Your task to perform on an android device: change the clock display to digital Image 0: 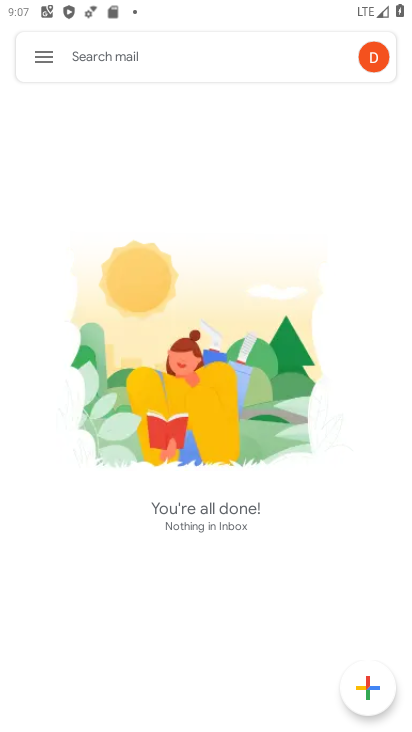
Step 0: press home button
Your task to perform on an android device: change the clock display to digital Image 1: 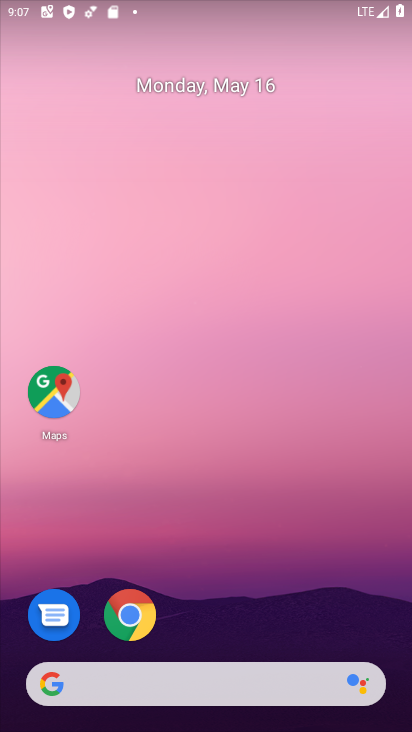
Step 1: drag from (235, 620) to (261, 178)
Your task to perform on an android device: change the clock display to digital Image 2: 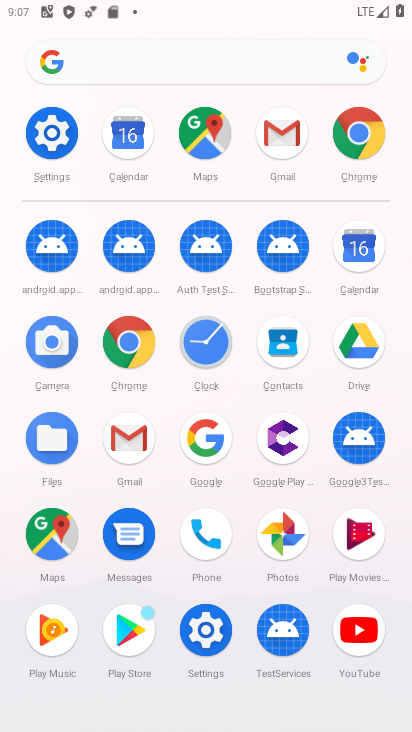
Step 2: click (200, 366)
Your task to perform on an android device: change the clock display to digital Image 3: 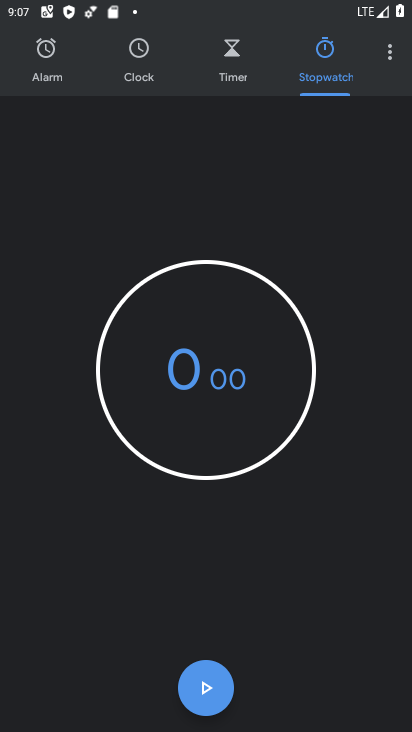
Step 3: click (385, 52)
Your task to perform on an android device: change the clock display to digital Image 4: 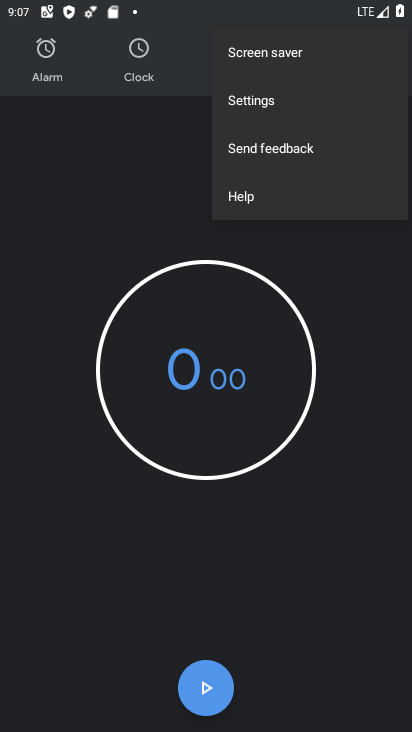
Step 4: click (240, 110)
Your task to perform on an android device: change the clock display to digital Image 5: 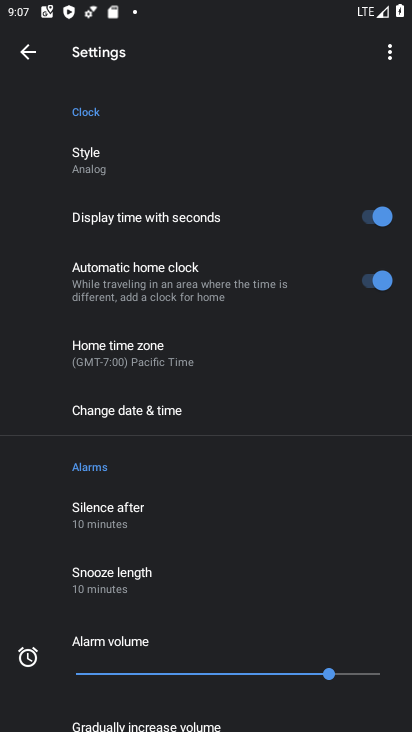
Step 5: click (119, 166)
Your task to perform on an android device: change the clock display to digital Image 6: 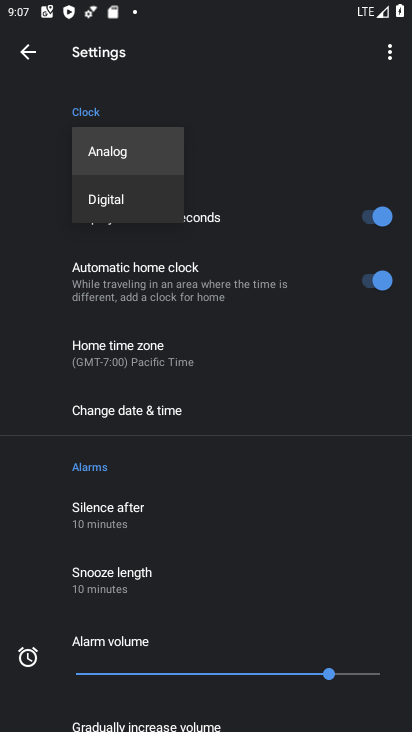
Step 6: click (147, 199)
Your task to perform on an android device: change the clock display to digital Image 7: 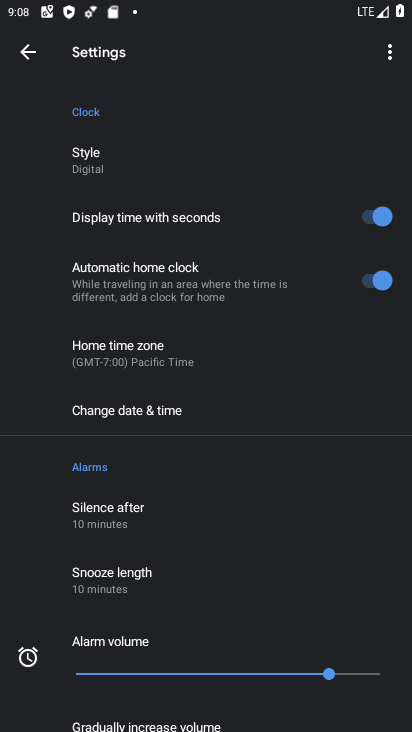
Step 7: task complete